Your task to perform on an android device: Search for logitech g502 on target, select the first entry, and add it to the cart. Image 0: 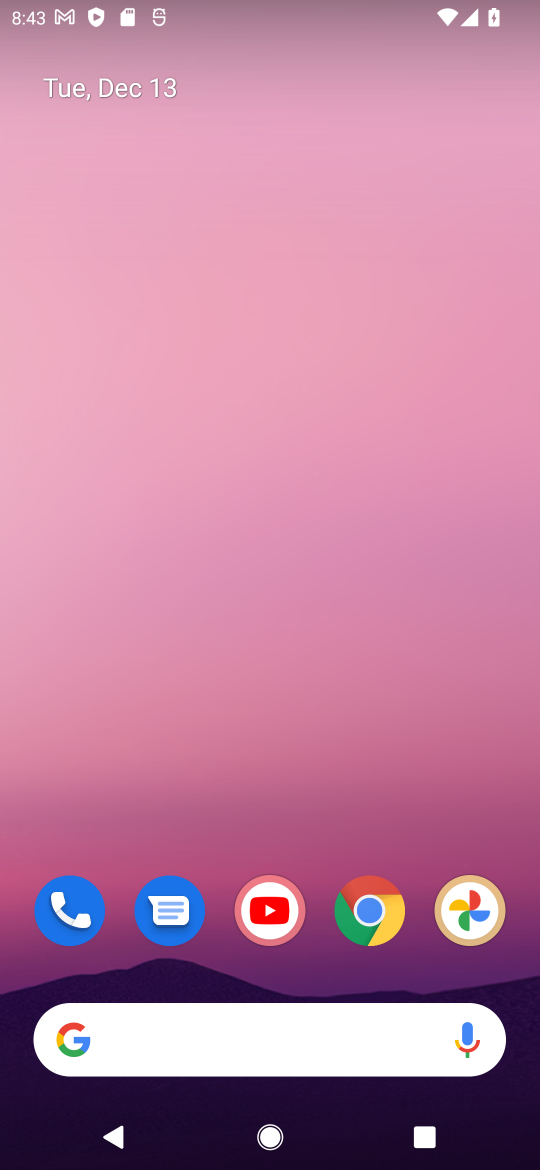
Step 0: drag from (293, 1025) to (303, 455)
Your task to perform on an android device: Search for logitech g502 on target, select the first entry, and add it to the cart. Image 1: 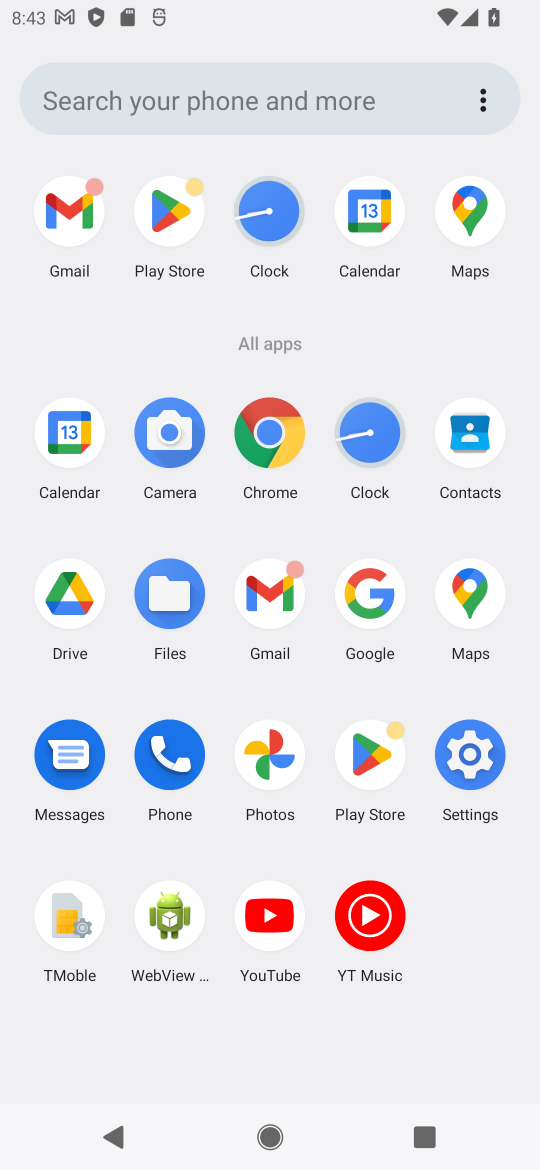
Step 1: click (370, 585)
Your task to perform on an android device: Search for logitech g502 on target, select the first entry, and add it to the cart. Image 2: 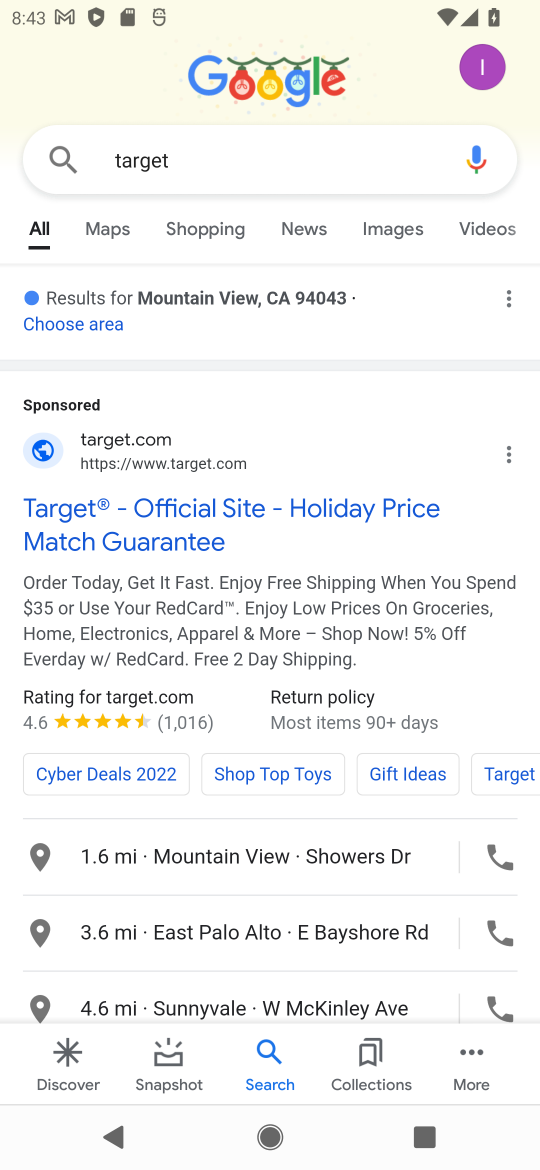
Step 2: click (122, 165)
Your task to perform on an android device: Search for logitech g502 on target, select the first entry, and add it to the cart. Image 3: 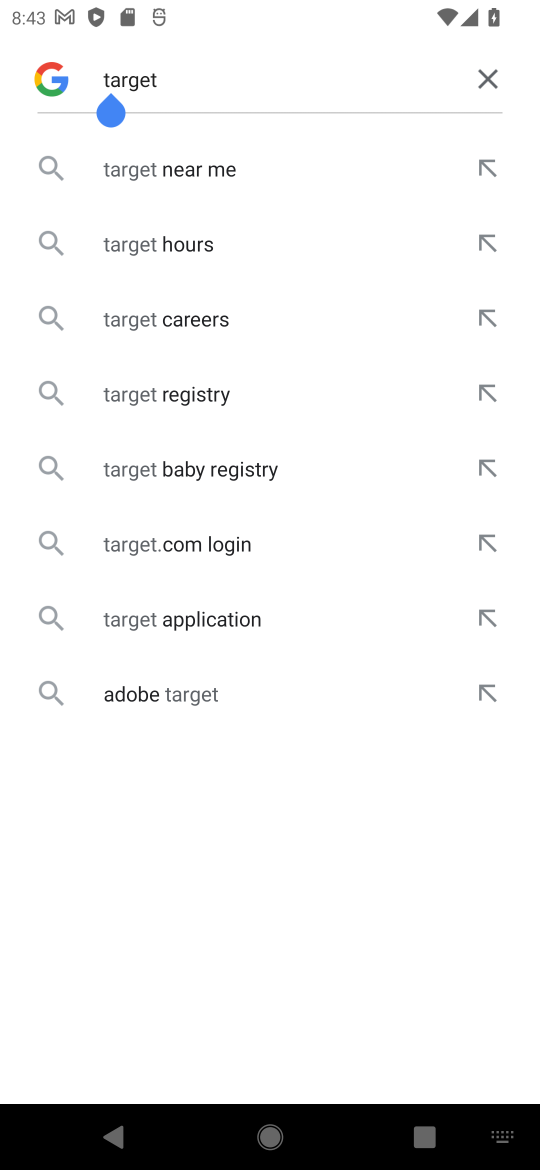
Step 3: click (488, 74)
Your task to perform on an android device: Search for logitech g502 on target, select the first entry, and add it to the cart. Image 4: 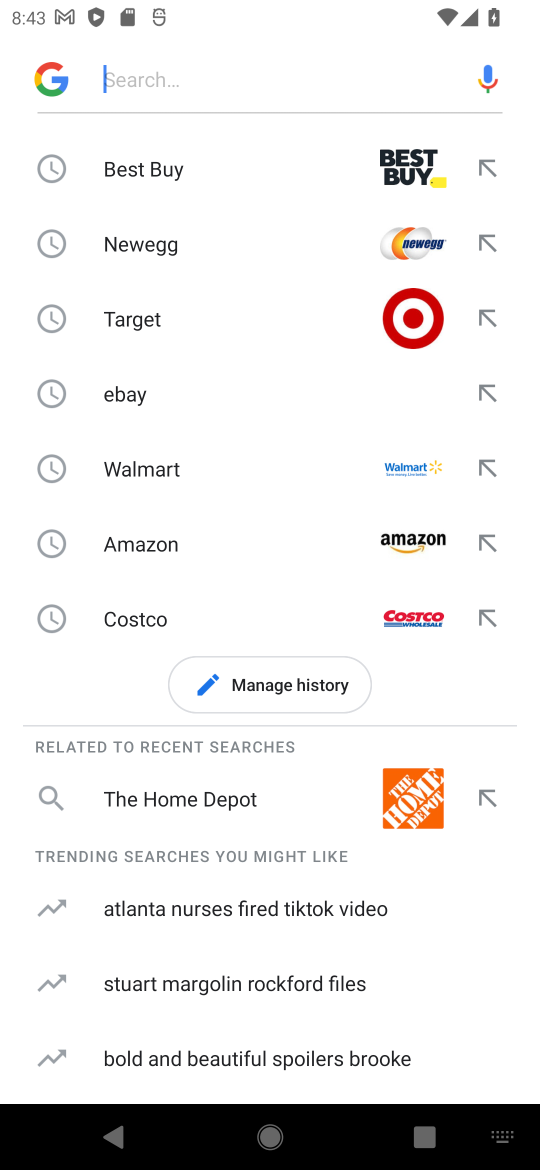
Step 4: click (410, 308)
Your task to perform on an android device: Search for logitech g502 on target, select the first entry, and add it to the cart. Image 5: 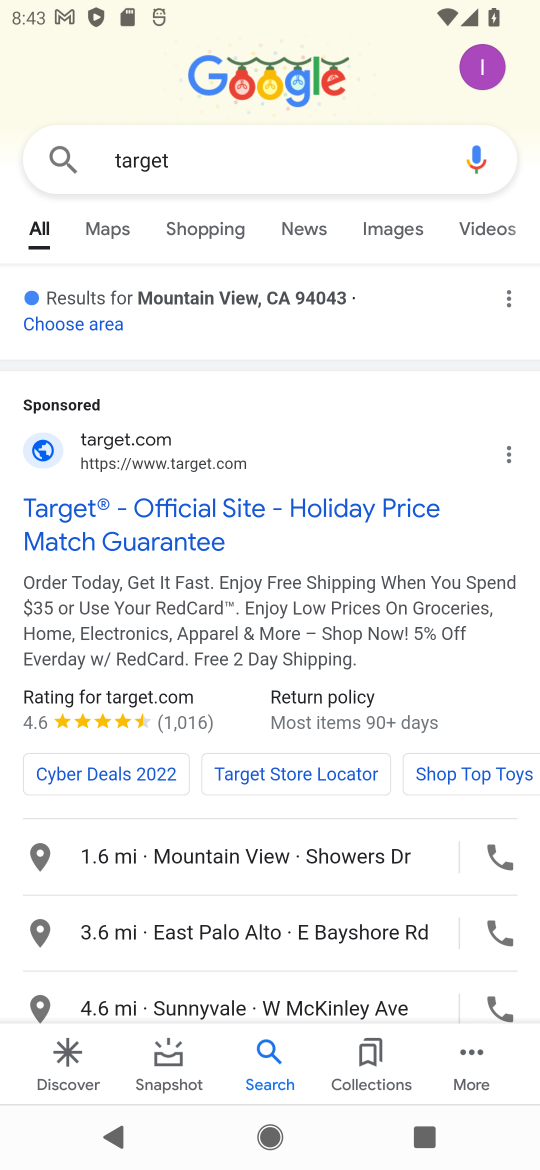
Step 5: click (142, 520)
Your task to perform on an android device: Search for logitech g502 on target, select the first entry, and add it to the cart. Image 6: 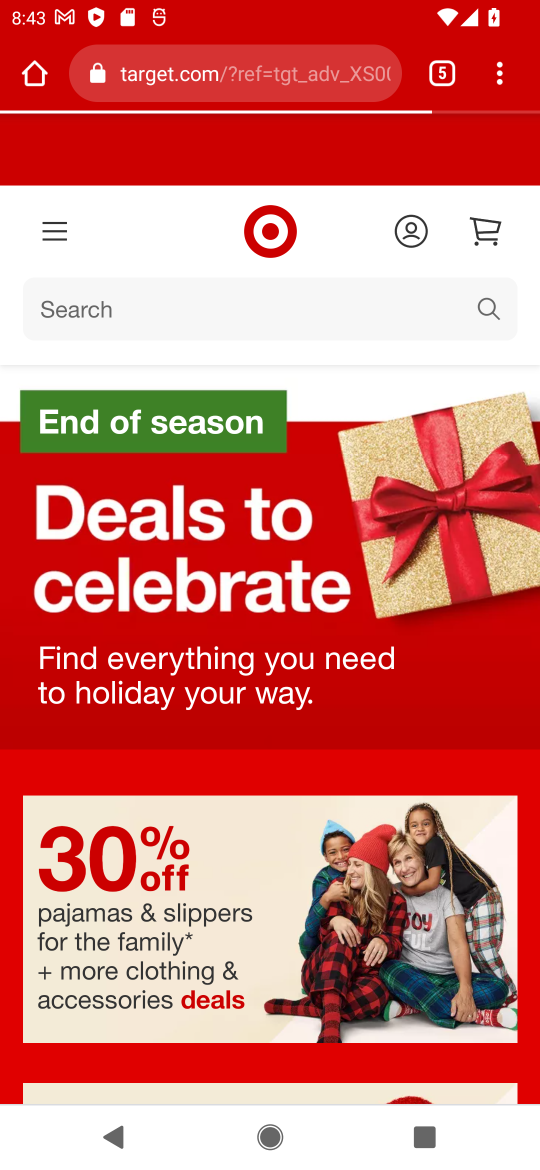
Step 6: click (160, 301)
Your task to perform on an android device: Search for logitech g502 on target, select the first entry, and add it to the cart. Image 7: 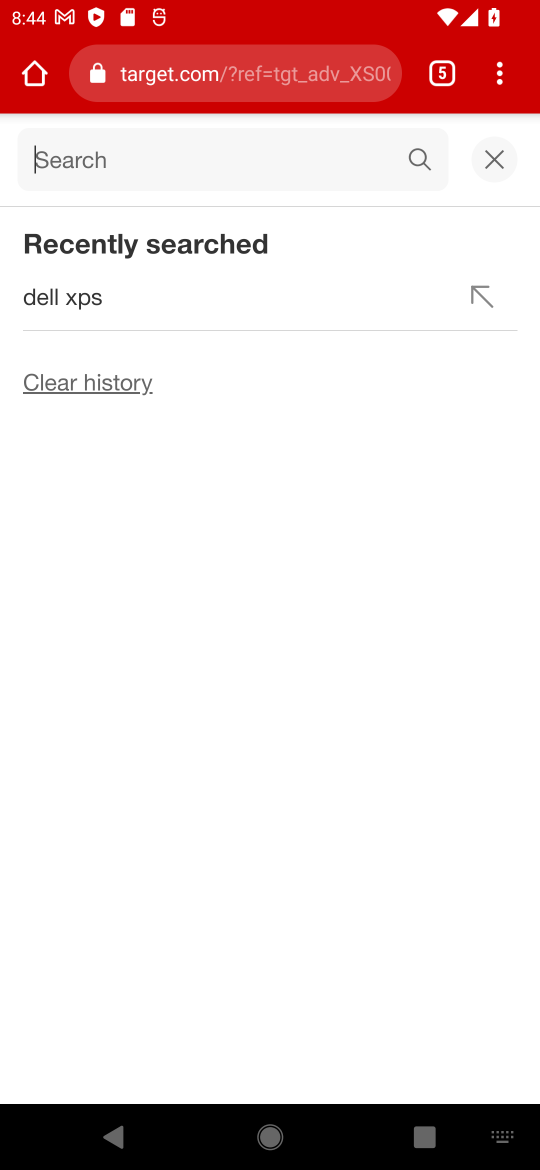
Step 7: type "logitech g502"
Your task to perform on an android device: Search for logitech g502 on target, select the first entry, and add it to the cart. Image 8: 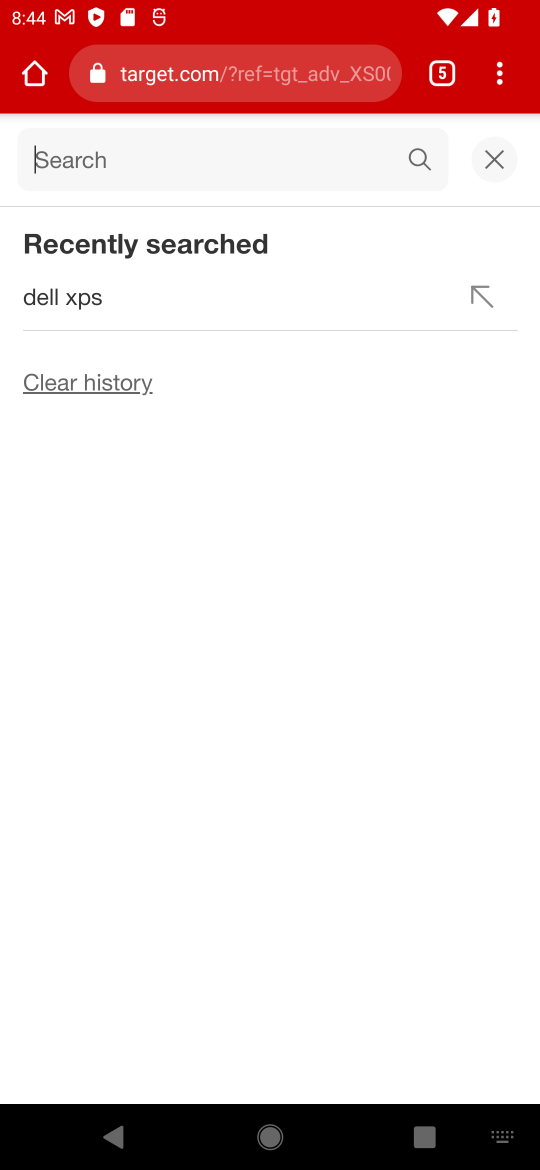
Step 8: click (421, 155)
Your task to perform on an android device: Search for logitech g502 on target, select the first entry, and add it to the cart. Image 9: 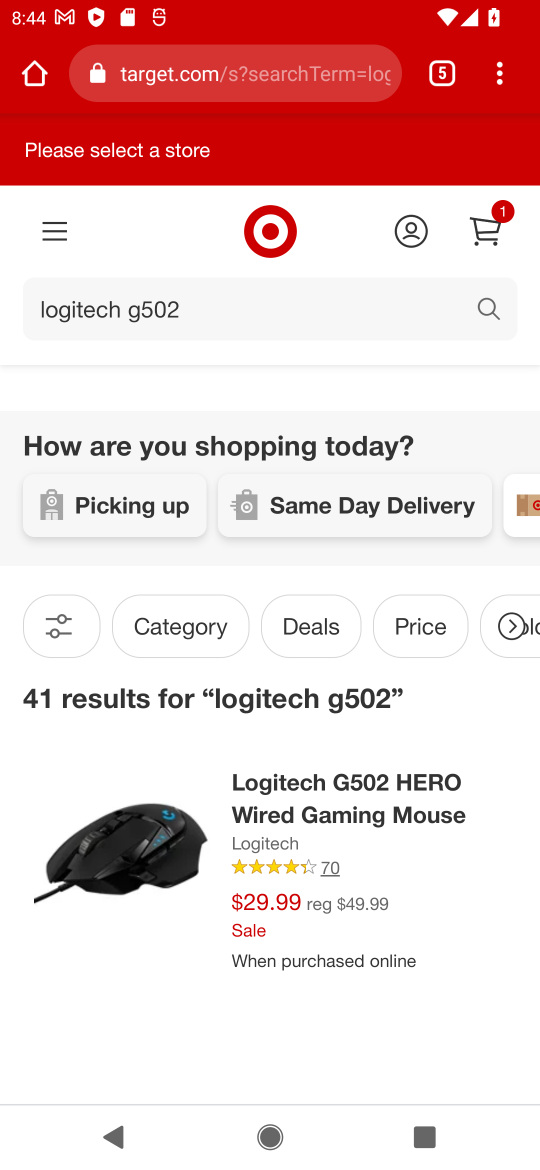
Step 9: click (263, 816)
Your task to perform on an android device: Search for logitech g502 on target, select the first entry, and add it to the cart. Image 10: 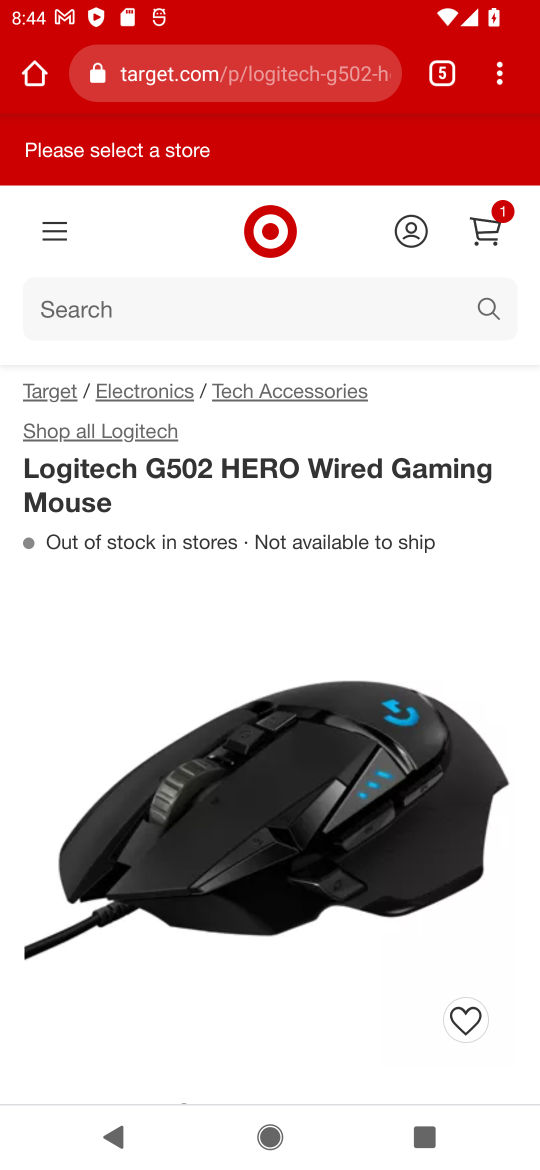
Step 10: drag from (312, 957) to (283, 503)
Your task to perform on an android device: Search for logitech g502 on target, select the first entry, and add it to the cart. Image 11: 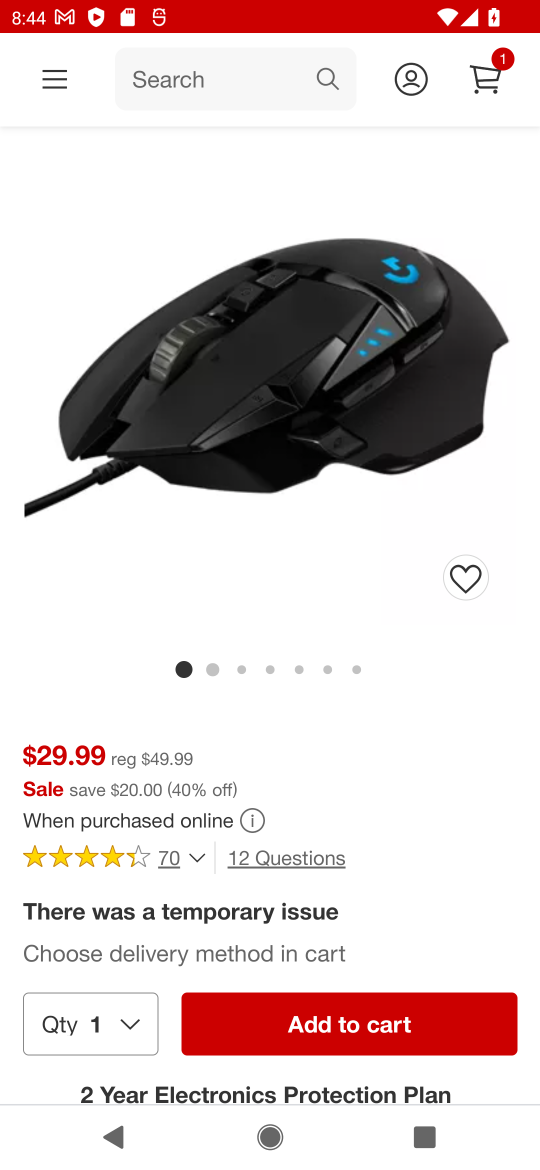
Step 11: click (356, 1023)
Your task to perform on an android device: Search for logitech g502 on target, select the first entry, and add it to the cart. Image 12: 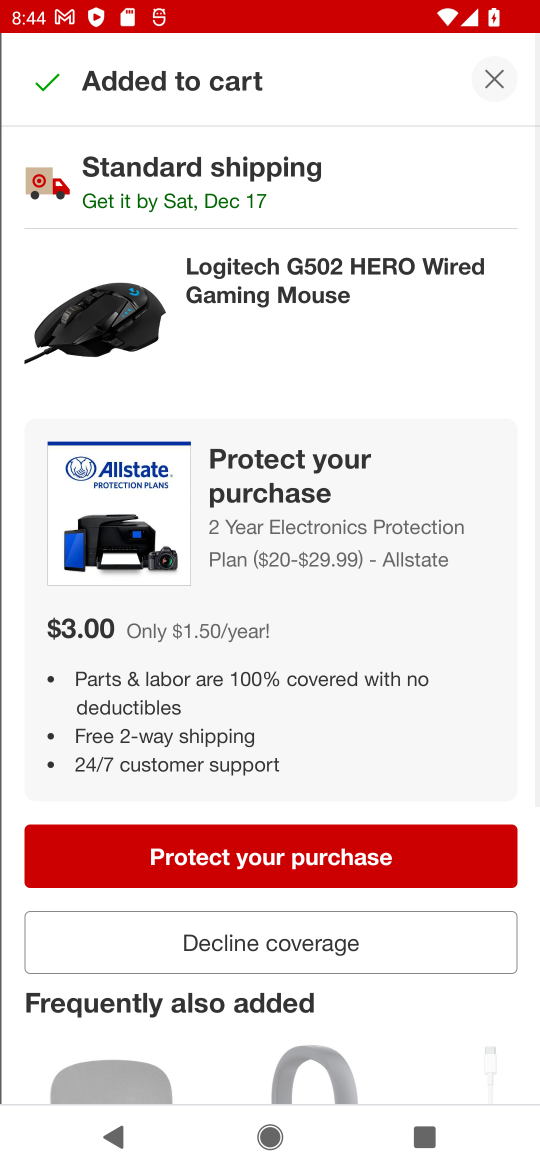
Step 12: task complete